Your task to perform on an android device: check battery use Image 0: 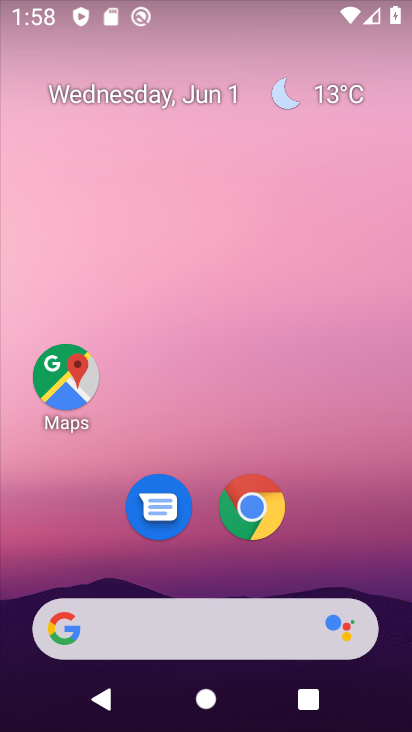
Step 0: drag from (331, 541) to (300, 47)
Your task to perform on an android device: check battery use Image 1: 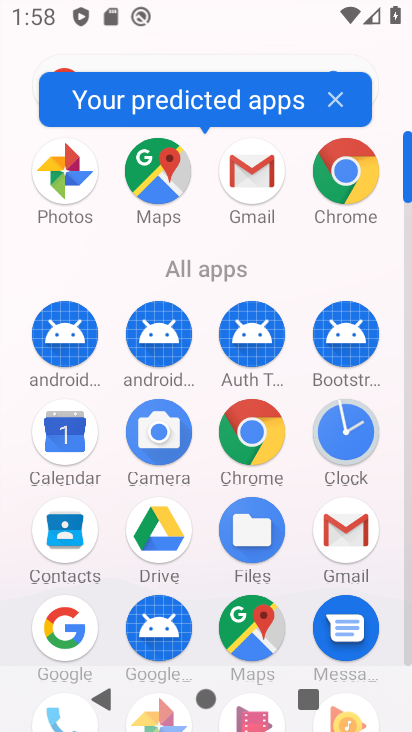
Step 1: click (409, 512)
Your task to perform on an android device: check battery use Image 2: 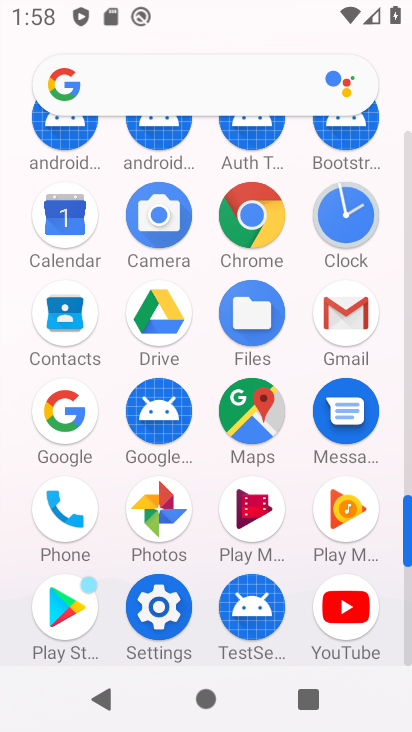
Step 2: click (159, 611)
Your task to perform on an android device: check battery use Image 3: 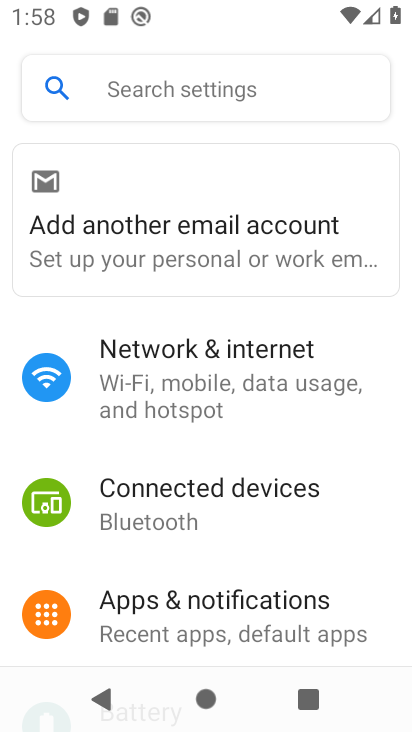
Step 3: drag from (375, 541) to (375, 305)
Your task to perform on an android device: check battery use Image 4: 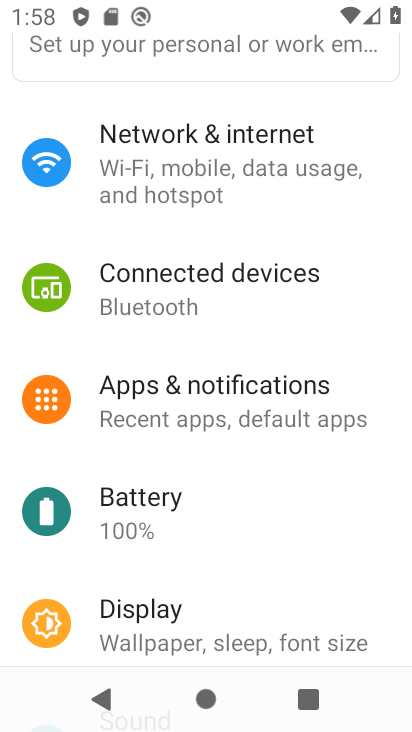
Step 4: click (118, 514)
Your task to perform on an android device: check battery use Image 5: 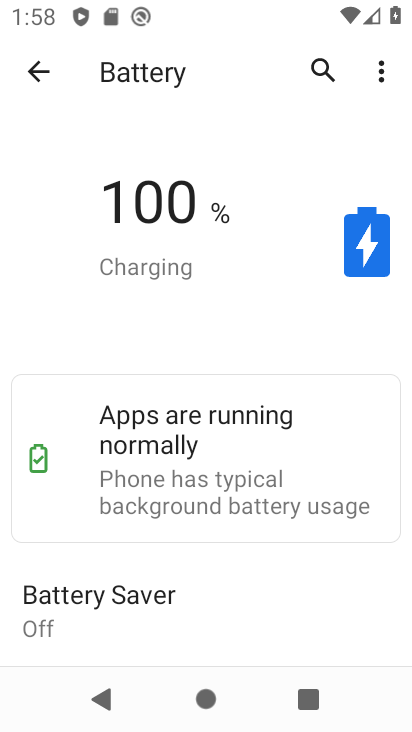
Step 5: click (384, 75)
Your task to perform on an android device: check battery use Image 6: 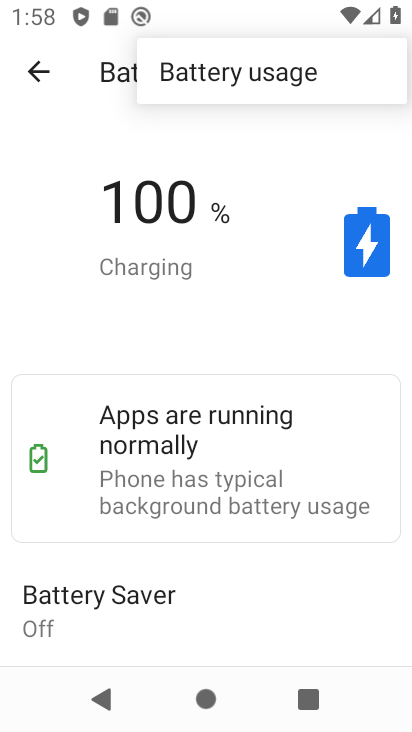
Step 6: click (257, 80)
Your task to perform on an android device: check battery use Image 7: 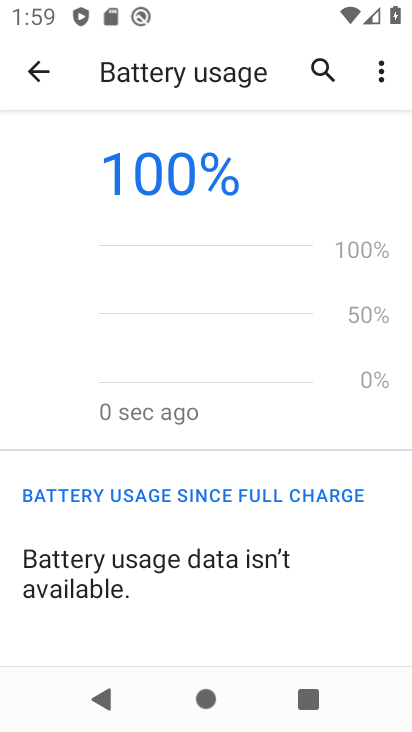
Step 7: task complete